Your task to perform on an android device: turn on javascript in the chrome app Image 0: 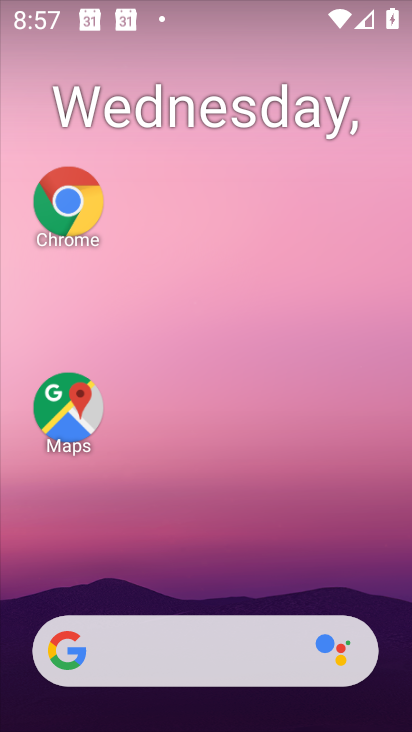
Step 0: click (83, 215)
Your task to perform on an android device: turn on javascript in the chrome app Image 1: 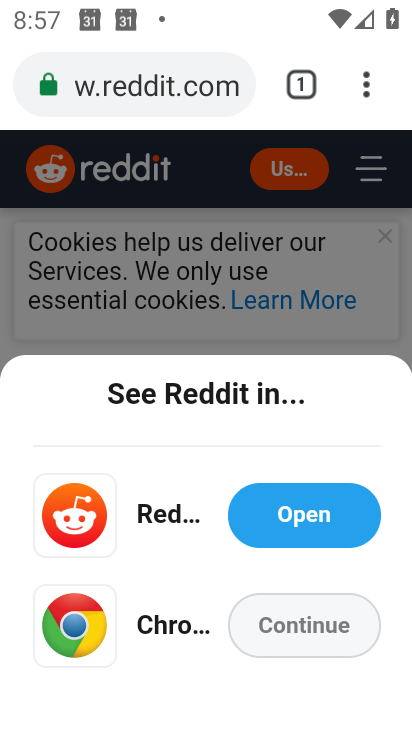
Step 1: click (359, 90)
Your task to perform on an android device: turn on javascript in the chrome app Image 2: 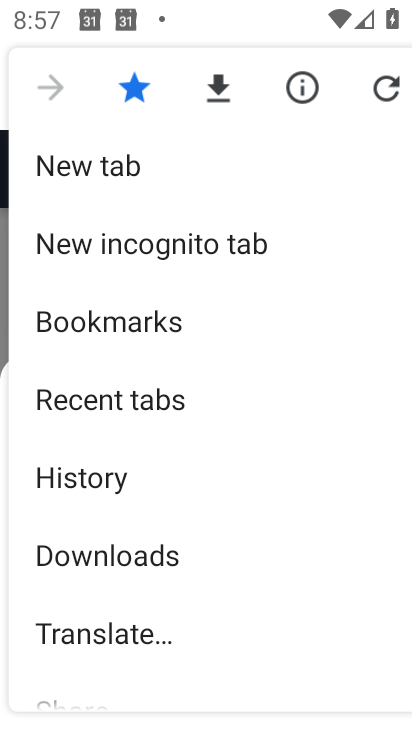
Step 2: drag from (131, 595) to (149, 261)
Your task to perform on an android device: turn on javascript in the chrome app Image 3: 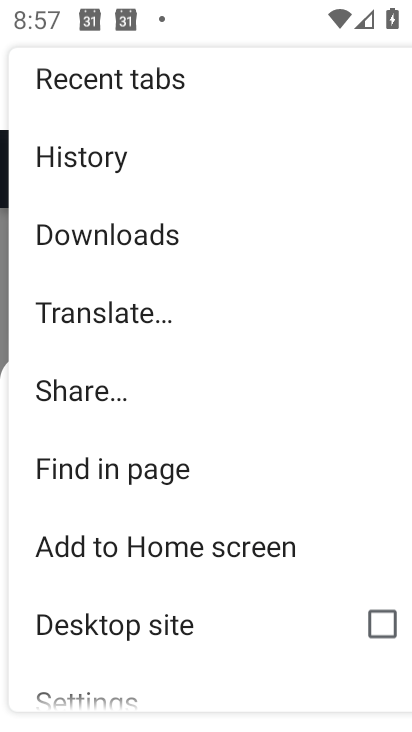
Step 3: click (91, 709)
Your task to perform on an android device: turn on javascript in the chrome app Image 4: 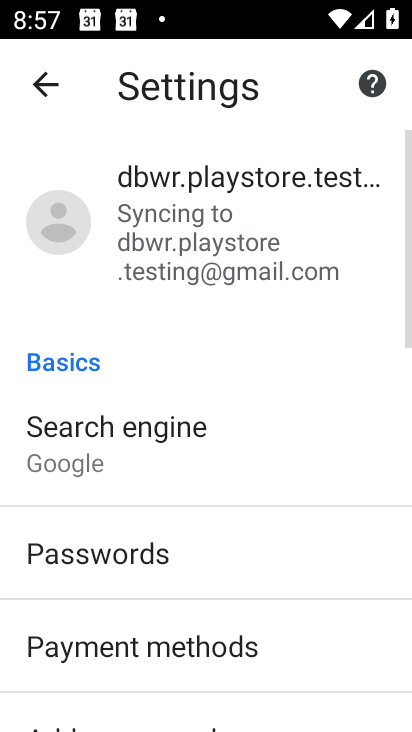
Step 4: drag from (115, 651) to (89, 363)
Your task to perform on an android device: turn on javascript in the chrome app Image 5: 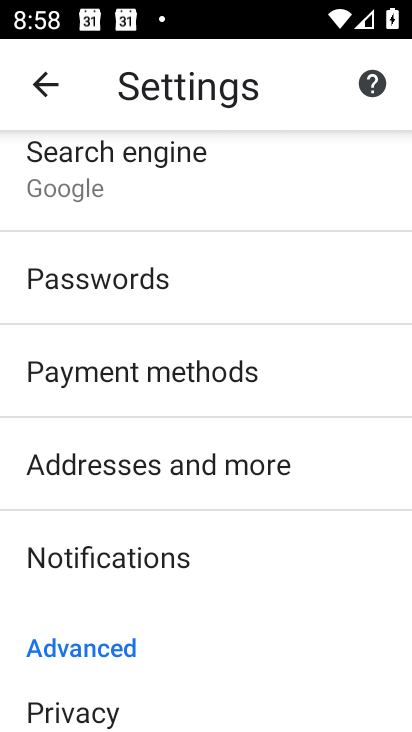
Step 5: click (83, 690)
Your task to perform on an android device: turn on javascript in the chrome app Image 6: 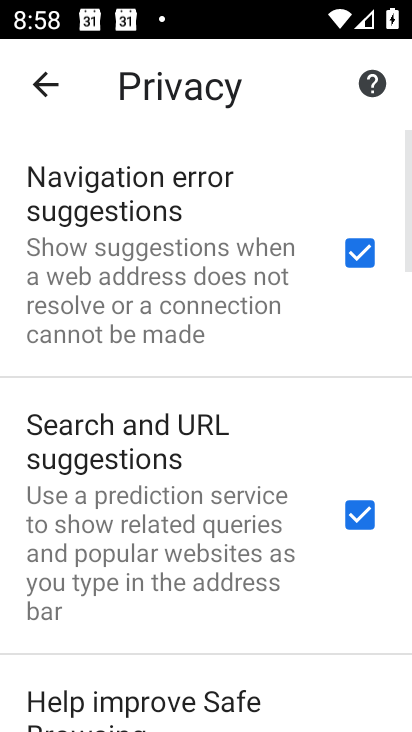
Step 6: click (54, 85)
Your task to perform on an android device: turn on javascript in the chrome app Image 7: 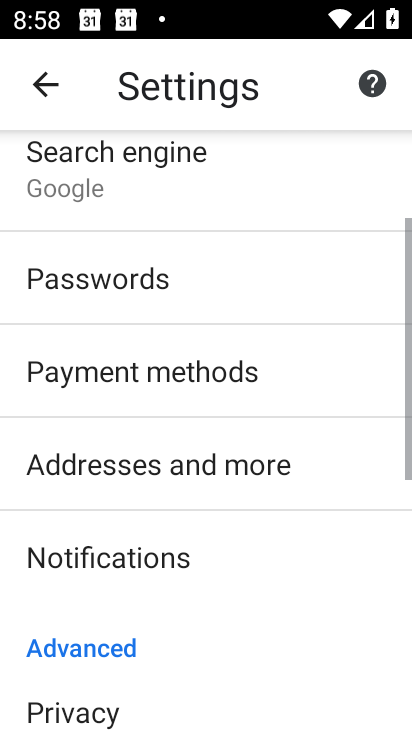
Step 7: drag from (151, 398) to (138, 218)
Your task to perform on an android device: turn on javascript in the chrome app Image 8: 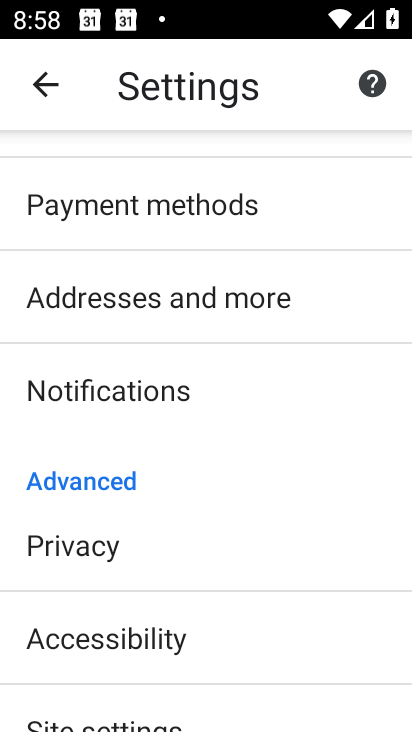
Step 8: drag from (177, 707) to (160, 411)
Your task to perform on an android device: turn on javascript in the chrome app Image 9: 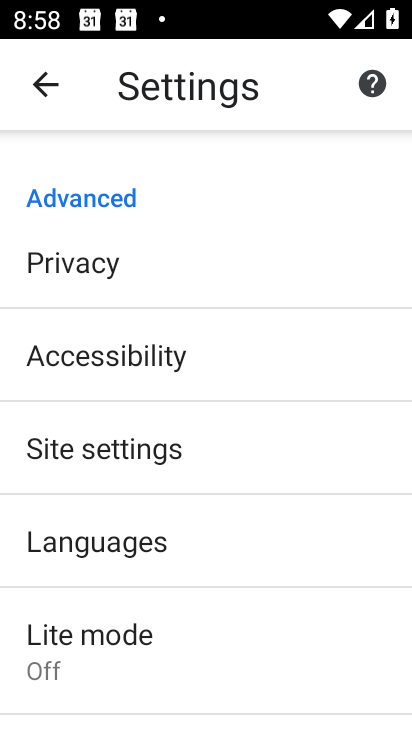
Step 9: click (132, 435)
Your task to perform on an android device: turn on javascript in the chrome app Image 10: 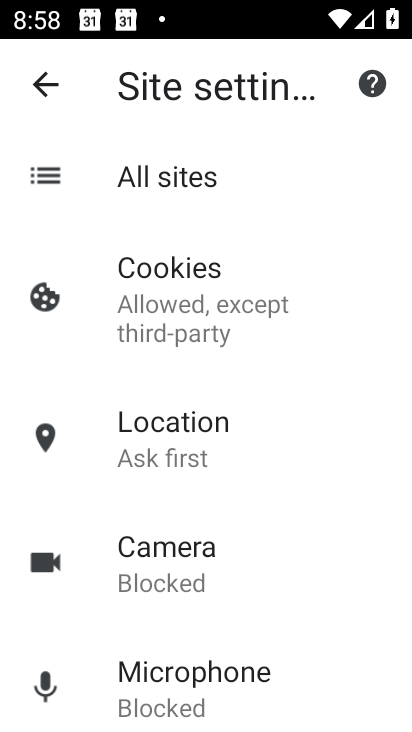
Step 10: drag from (141, 519) to (139, 239)
Your task to perform on an android device: turn on javascript in the chrome app Image 11: 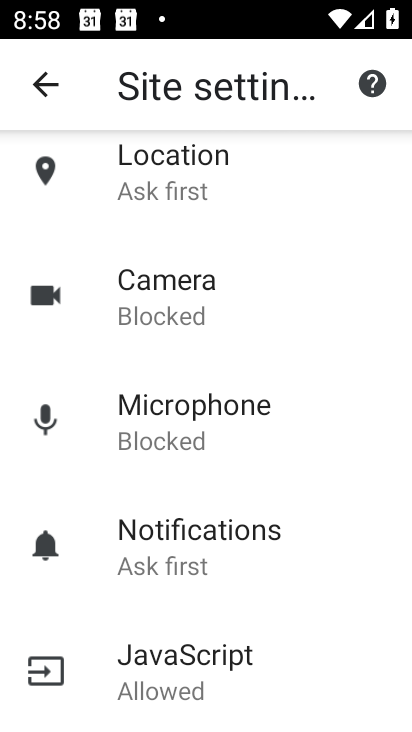
Step 11: click (161, 698)
Your task to perform on an android device: turn on javascript in the chrome app Image 12: 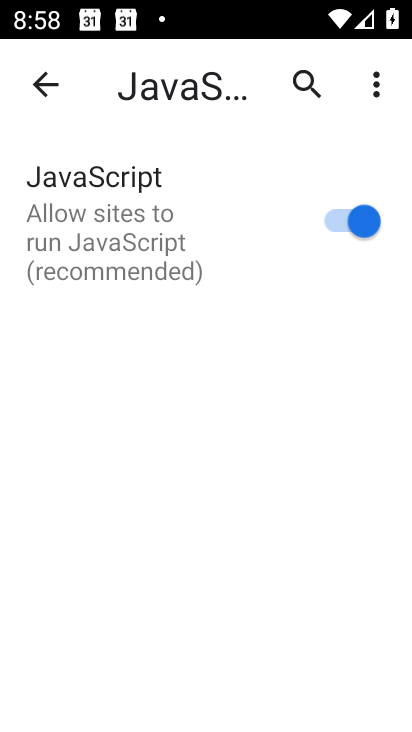
Step 12: task complete